Your task to perform on an android device: change the clock display to digital Image 0: 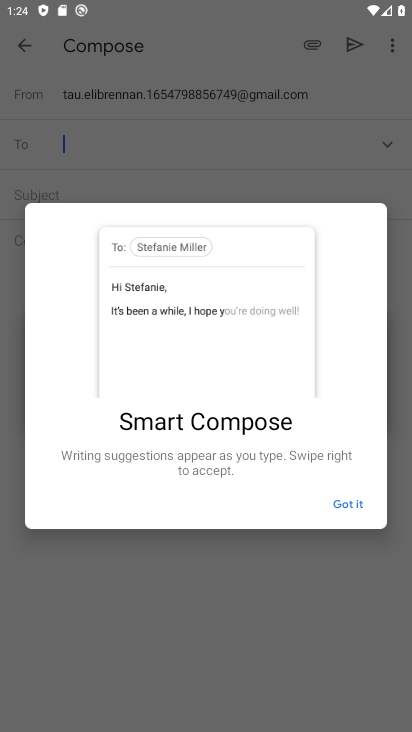
Step 0: press home button
Your task to perform on an android device: change the clock display to digital Image 1: 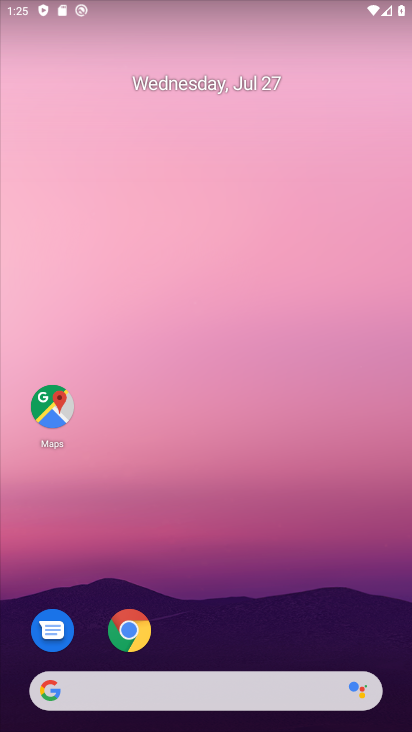
Step 1: drag from (382, 633) to (312, 159)
Your task to perform on an android device: change the clock display to digital Image 2: 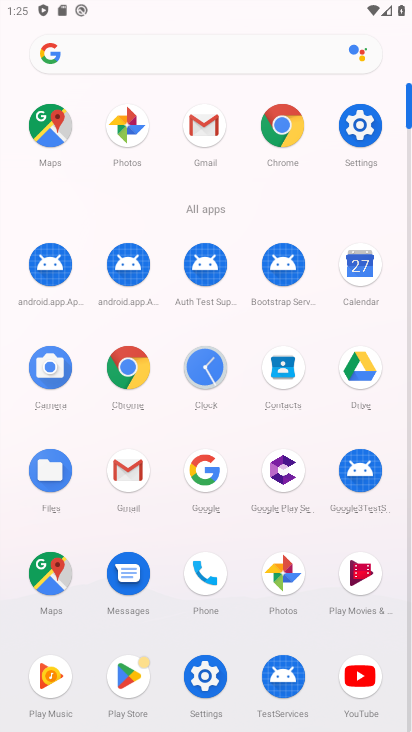
Step 2: click (204, 367)
Your task to perform on an android device: change the clock display to digital Image 3: 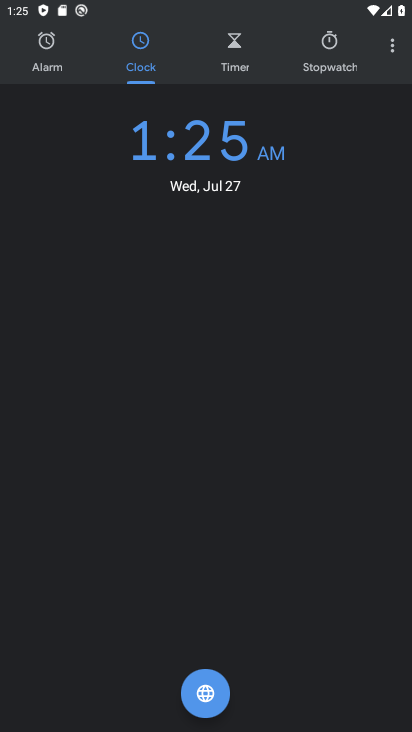
Step 3: click (391, 53)
Your task to perform on an android device: change the clock display to digital Image 4: 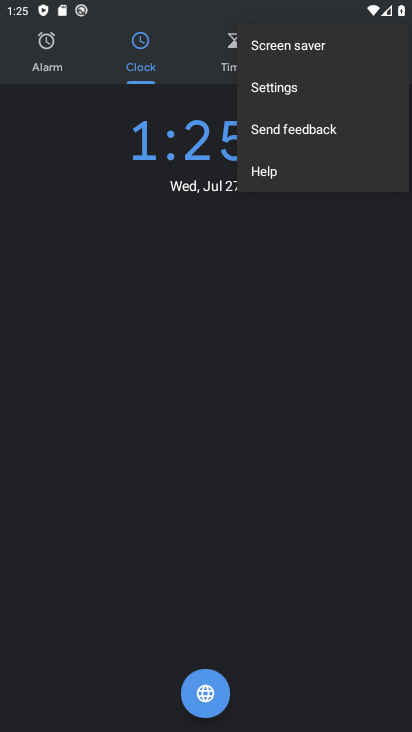
Step 4: click (279, 89)
Your task to perform on an android device: change the clock display to digital Image 5: 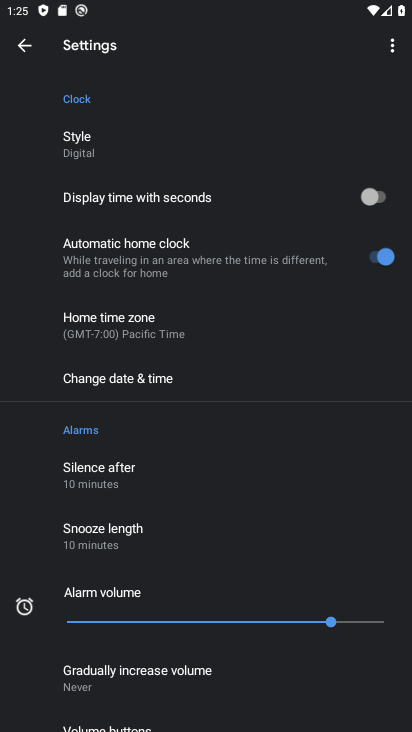
Step 5: task complete